Your task to perform on an android device: turn off location Image 0: 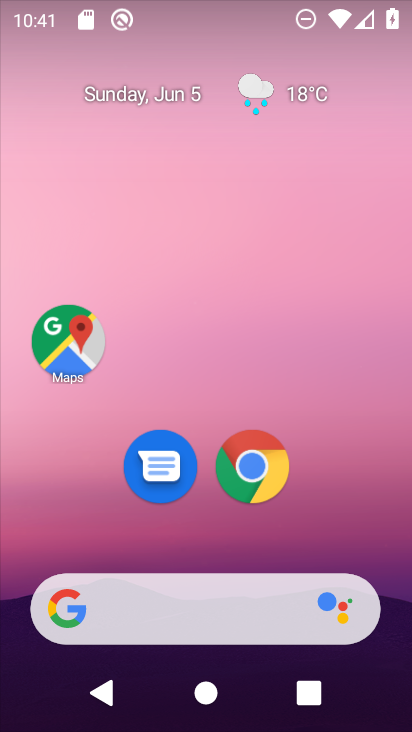
Step 0: drag from (360, 460) to (266, 26)
Your task to perform on an android device: turn off location Image 1: 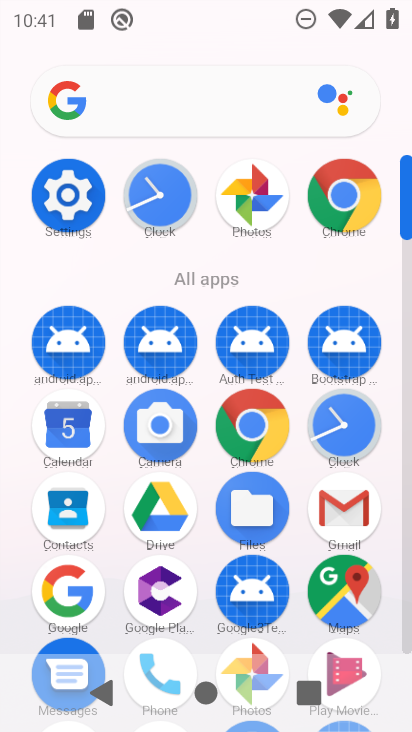
Step 1: drag from (12, 517) to (16, 245)
Your task to perform on an android device: turn off location Image 2: 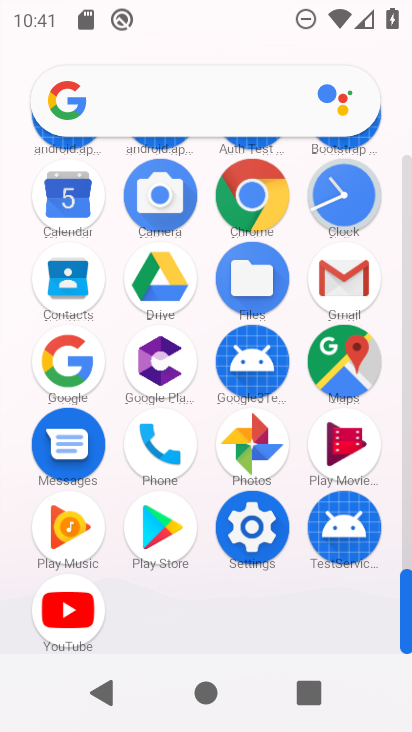
Step 2: click (248, 521)
Your task to perform on an android device: turn off location Image 3: 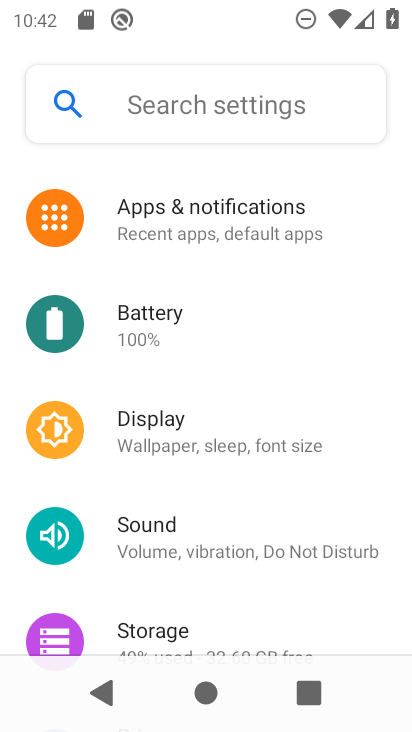
Step 3: drag from (290, 505) to (325, 184)
Your task to perform on an android device: turn off location Image 4: 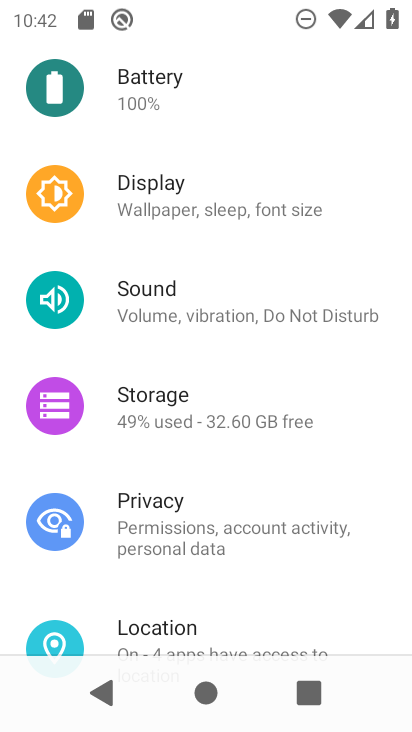
Step 4: drag from (195, 604) to (264, 253)
Your task to perform on an android device: turn off location Image 5: 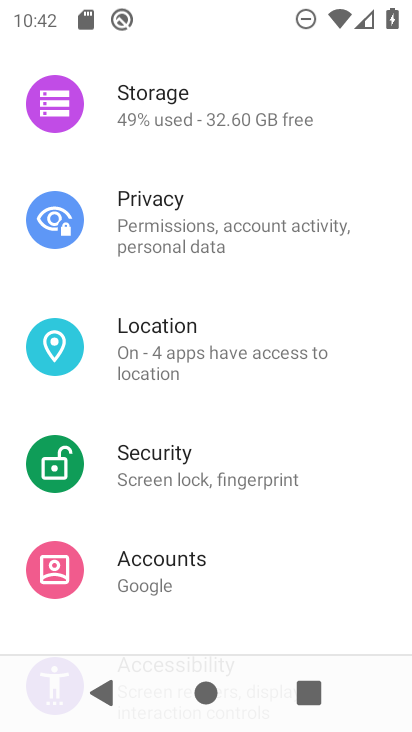
Step 5: click (190, 297)
Your task to perform on an android device: turn off location Image 6: 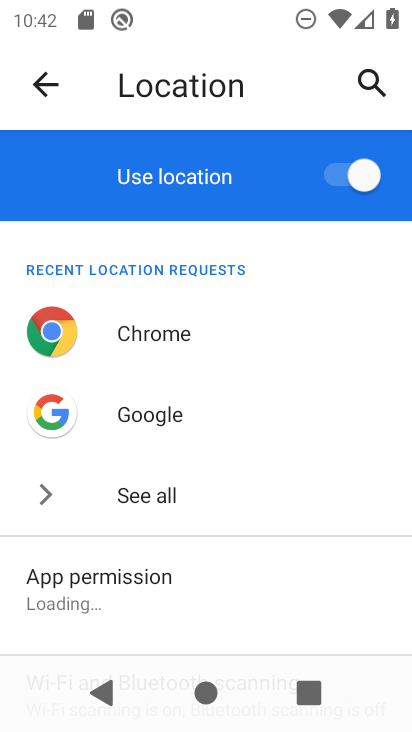
Step 6: click (342, 171)
Your task to perform on an android device: turn off location Image 7: 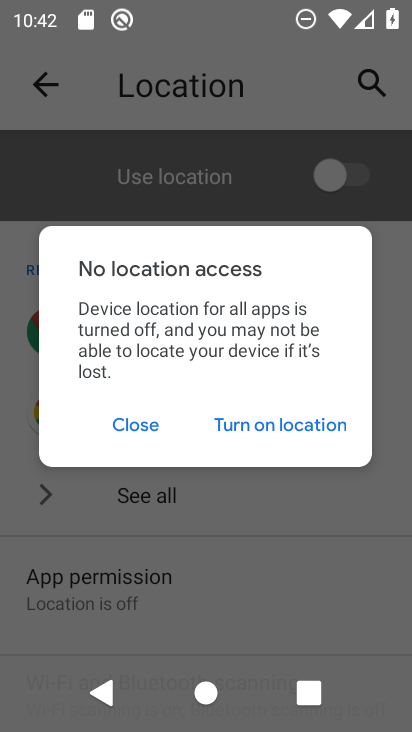
Step 7: click (241, 431)
Your task to perform on an android device: turn off location Image 8: 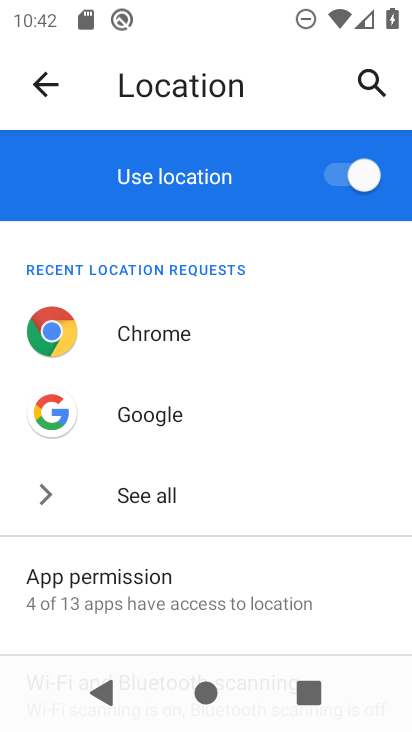
Step 8: click (359, 159)
Your task to perform on an android device: turn off location Image 9: 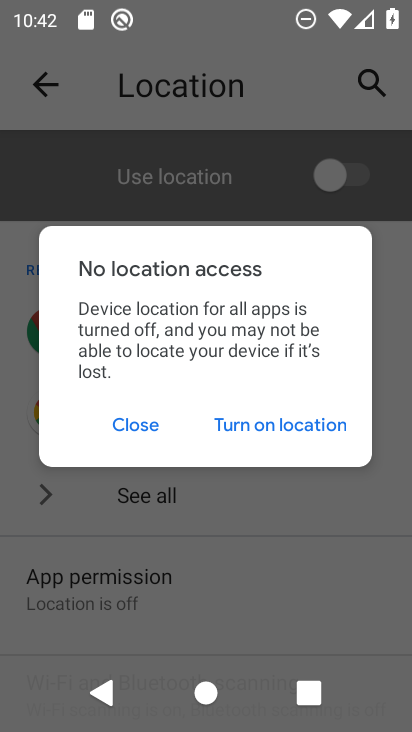
Step 9: click (141, 424)
Your task to perform on an android device: turn off location Image 10: 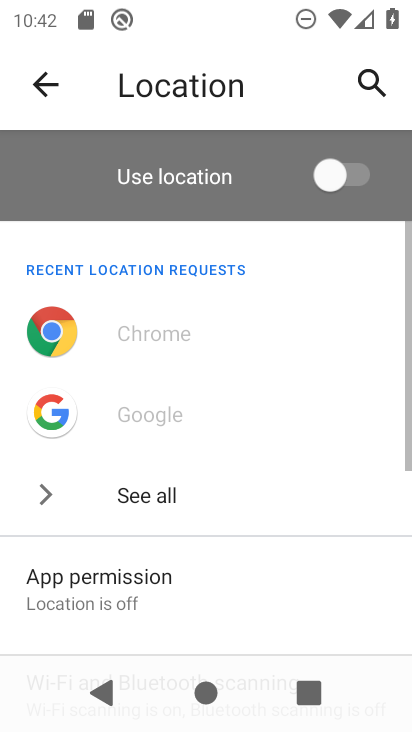
Step 10: task complete